Your task to perform on an android device: Search for seafood restaurants on Google Maps Image 0: 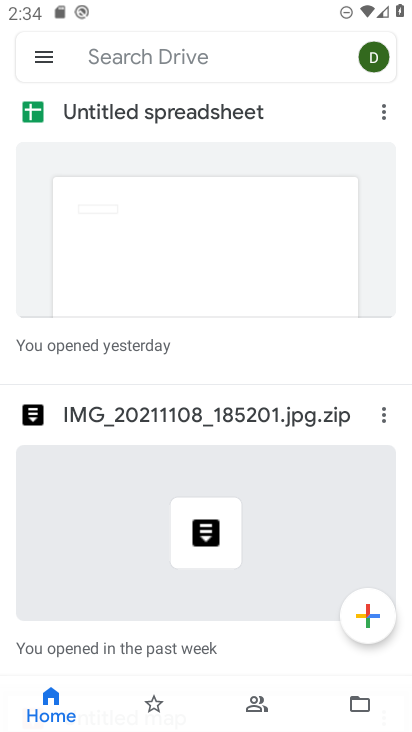
Step 0: press home button
Your task to perform on an android device: Search for seafood restaurants on Google Maps Image 1: 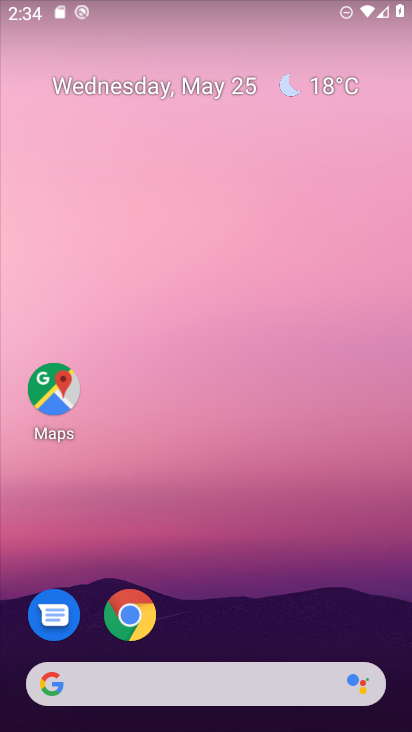
Step 1: click (38, 377)
Your task to perform on an android device: Search for seafood restaurants on Google Maps Image 2: 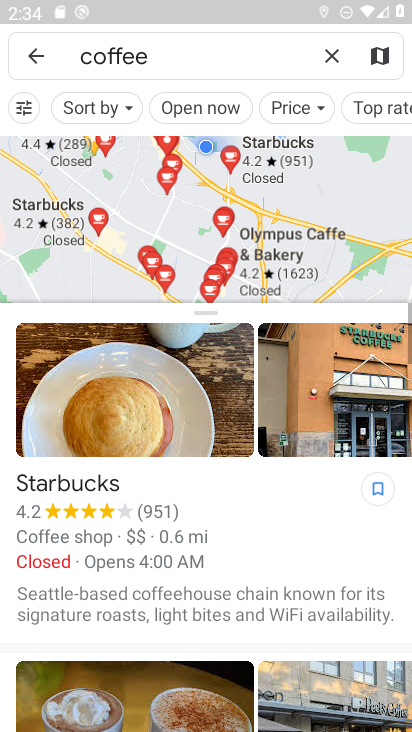
Step 2: click (333, 46)
Your task to perform on an android device: Search for seafood restaurants on Google Maps Image 3: 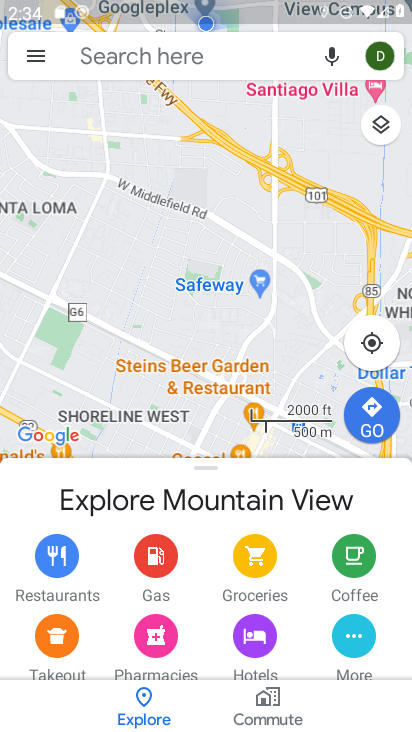
Step 3: click (246, 55)
Your task to perform on an android device: Search for seafood restaurants on Google Maps Image 4: 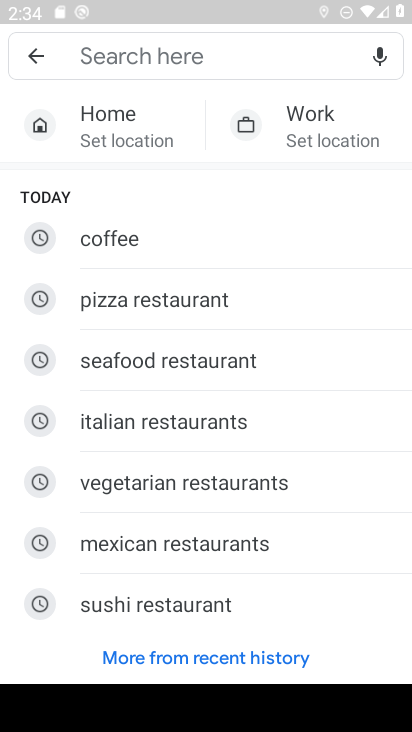
Step 4: click (159, 355)
Your task to perform on an android device: Search for seafood restaurants on Google Maps Image 5: 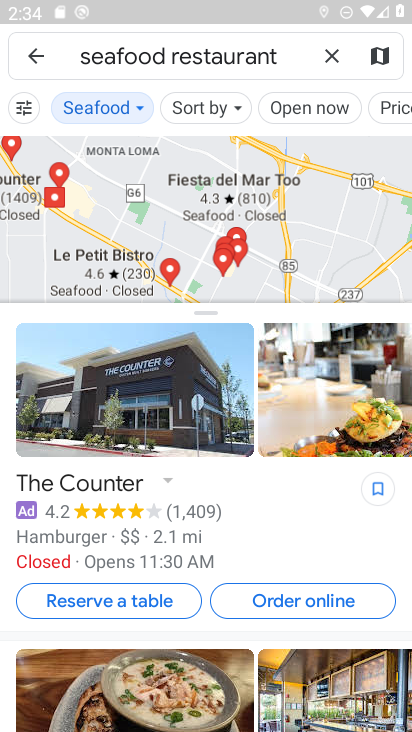
Step 5: task complete